Your task to perform on an android device: Go to Reddit.com Image 0: 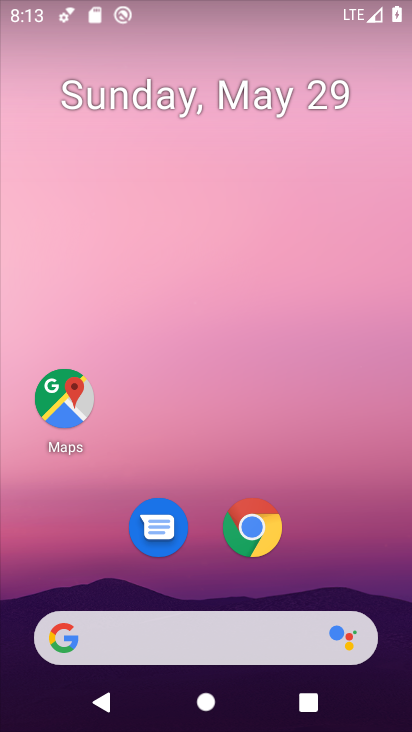
Step 0: press home button
Your task to perform on an android device: Go to Reddit.com Image 1: 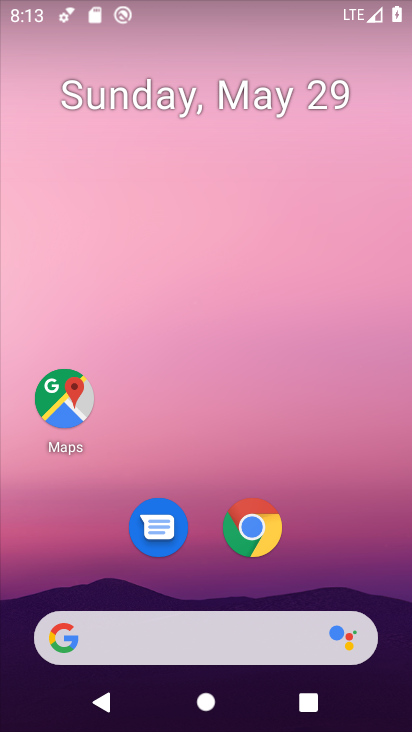
Step 1: click (249, 521)
Your task to perform on an android device: Go to Reddit.com Image 2: 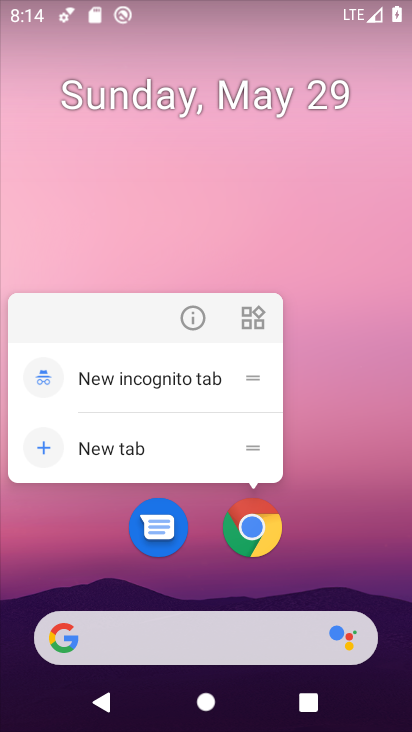
Step 2: click (246, 522)
Your task to perform on an android device: Go to Reddit.com Image 3: 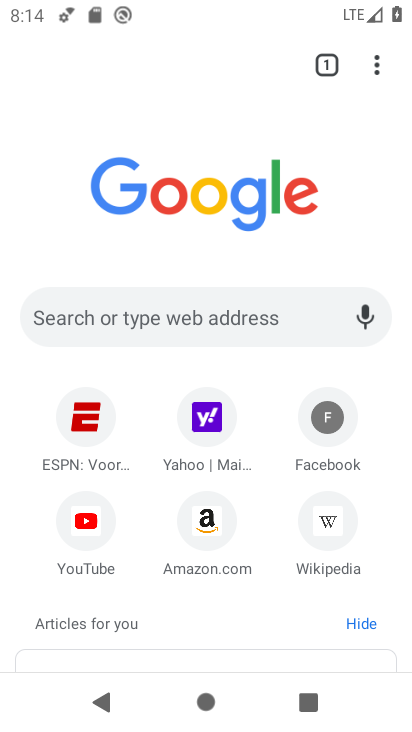
Step 3: click (146, 308)
Your task to perform on an android device: Go to Reddit.com Image 4: 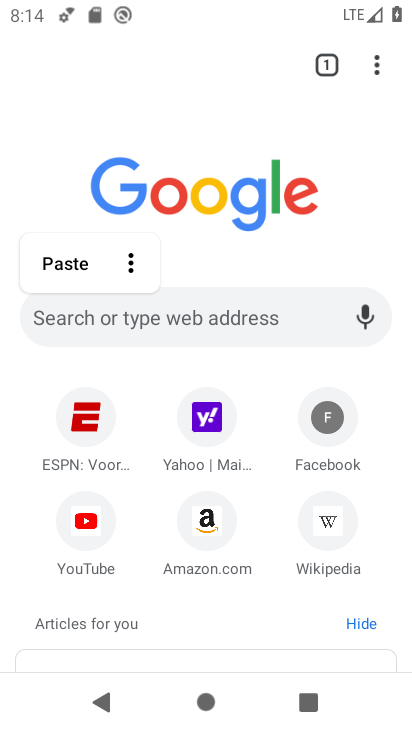
Step 4: type "reddit"
Your task to perform on an android device: Go to Reddit.com Image 5: 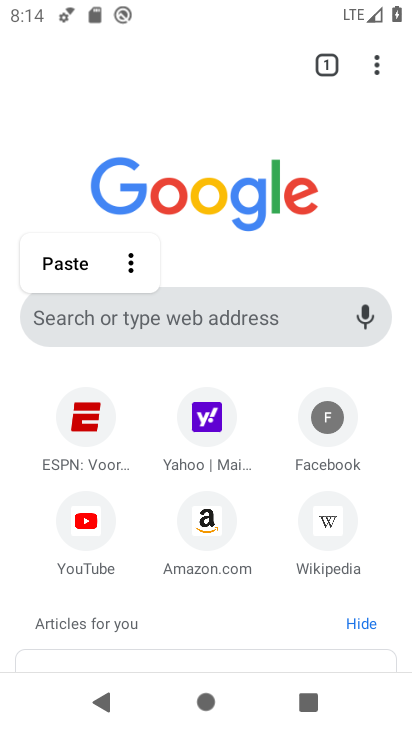
Step 5: click (110, 321)
Your task to perform on an android device: Go to Reddit.com Image 6: 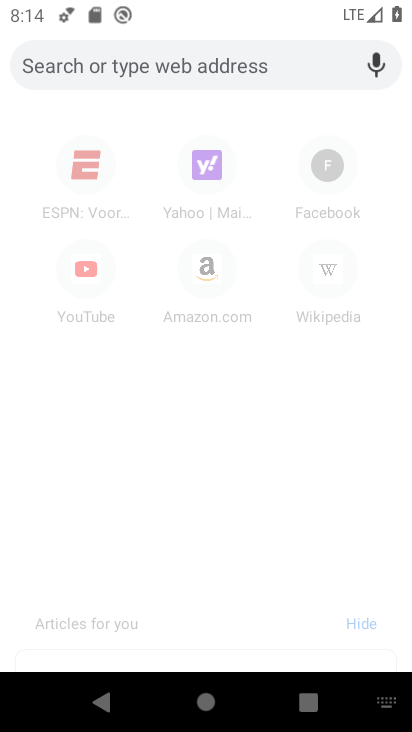
Step 6: type "reddit"
Your task to perform on an android device: Go to Reddit.com Image 7: 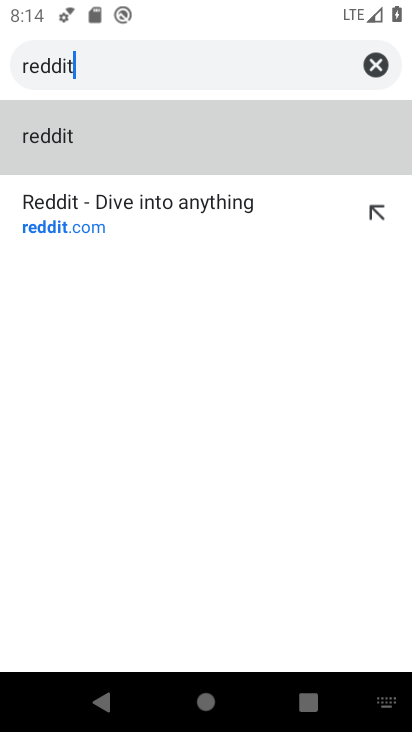
Step 7: click (125, 230)
Your task to perform on an android device: Go to Reddit.com Image 8: 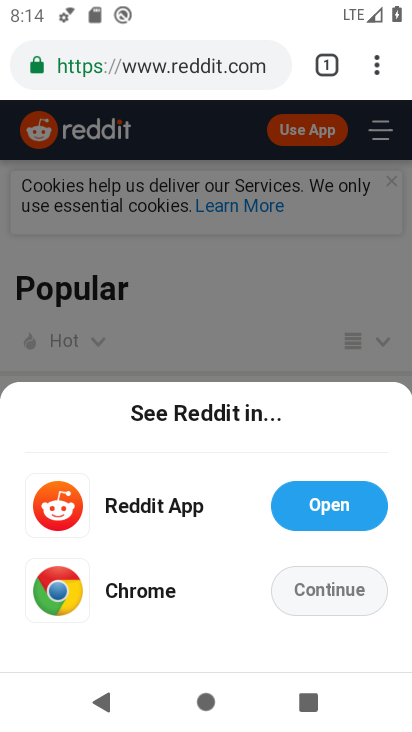
Step 8: click (335, 582)
Your task to perform on an android device: Go to Reddit.com Image 9: 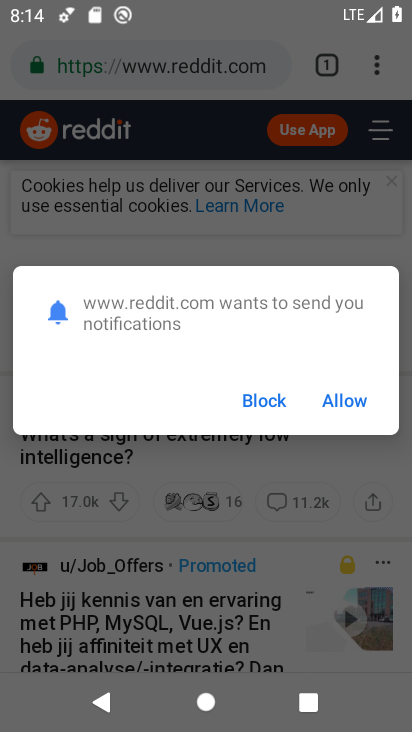
Step 9: click (255, 399)
Your task to perform on an android device: Go to Reddit.com Image 10: 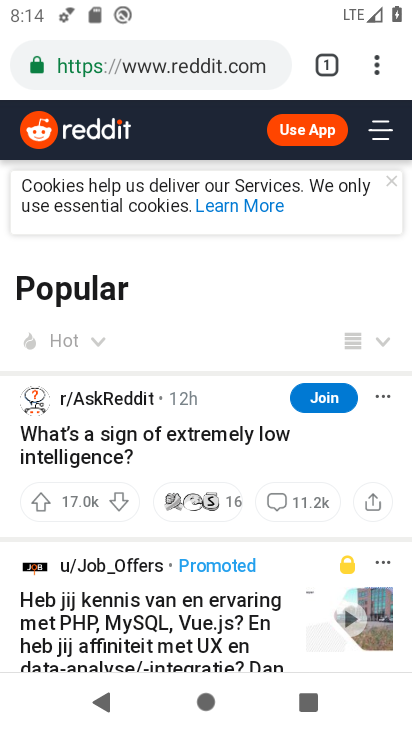
Step 10: task complete